Your task to perform on an android device: Toggle the flashlight Image 0: 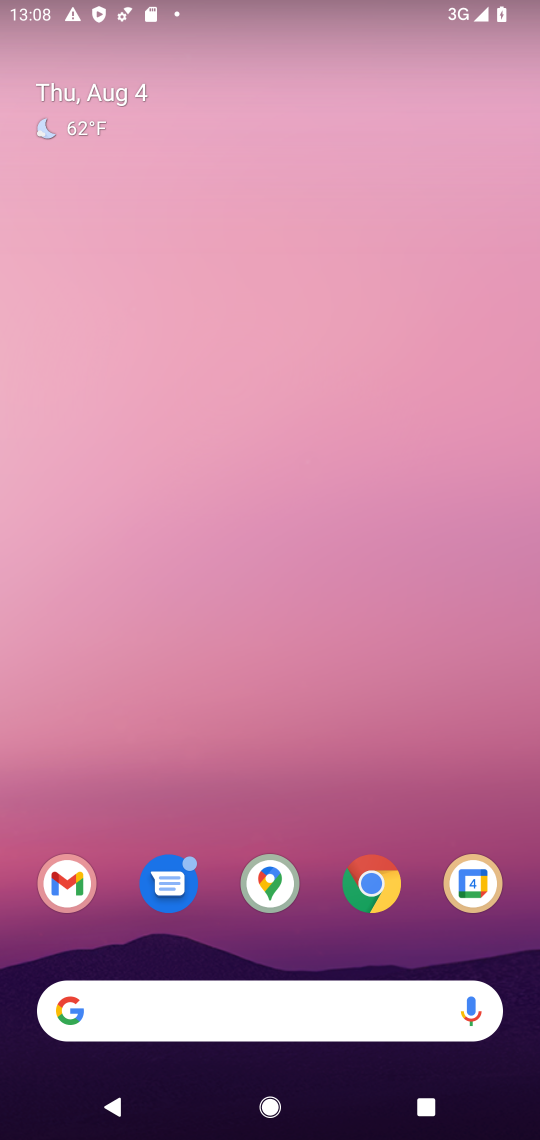
Step 0: drag from (220, 948) to (230, 275)
Your task to perform on an android device: Toggle the flashlight Image 1: 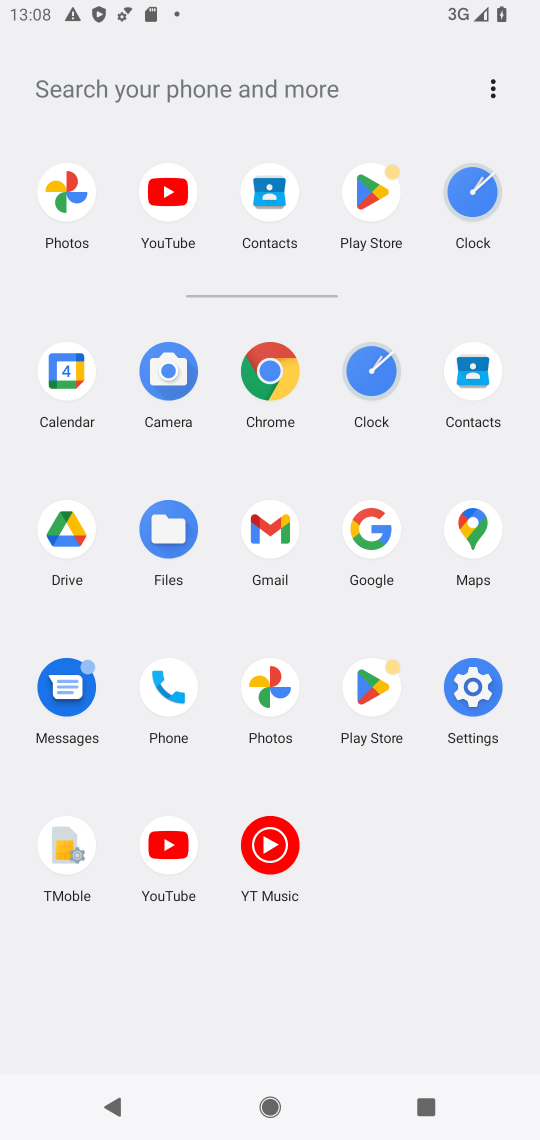
Step 1: click (466, 700)
Your task to perform on an android device: Toggle the flashlight Image 2: 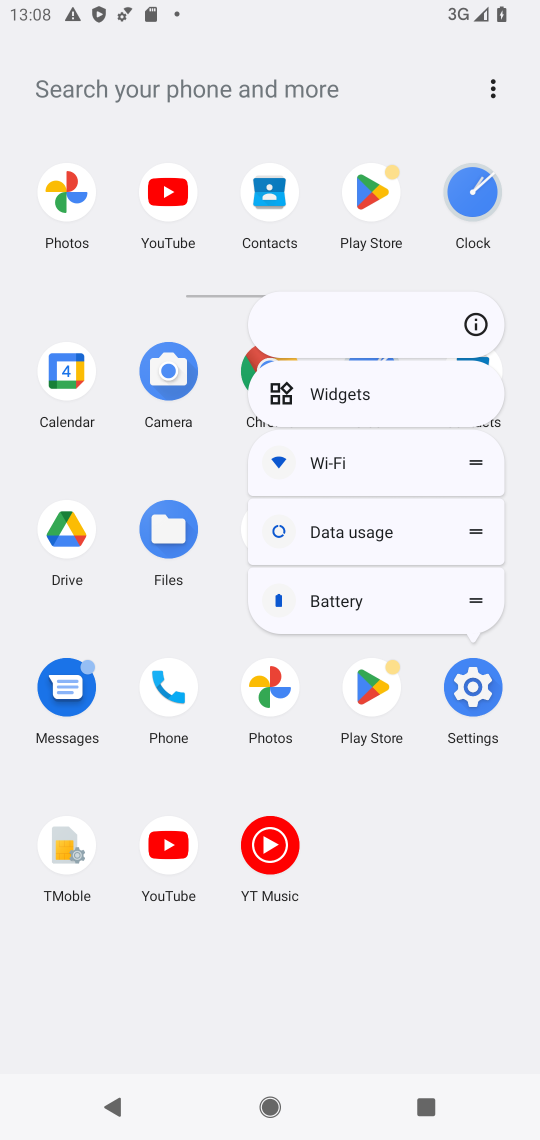
Step 2: click (477, 321)
Your task to perform on an android device: Toggle the flashlight Image 3: 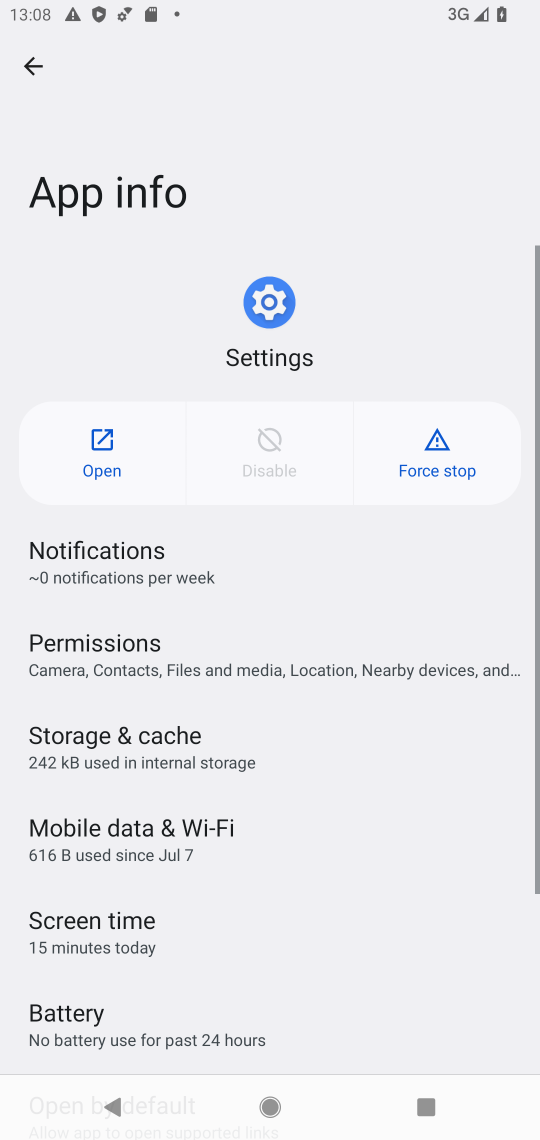
Step 3: click (87, 451)
Your task to perform on an android device: Toggle the flashlight Image 4: 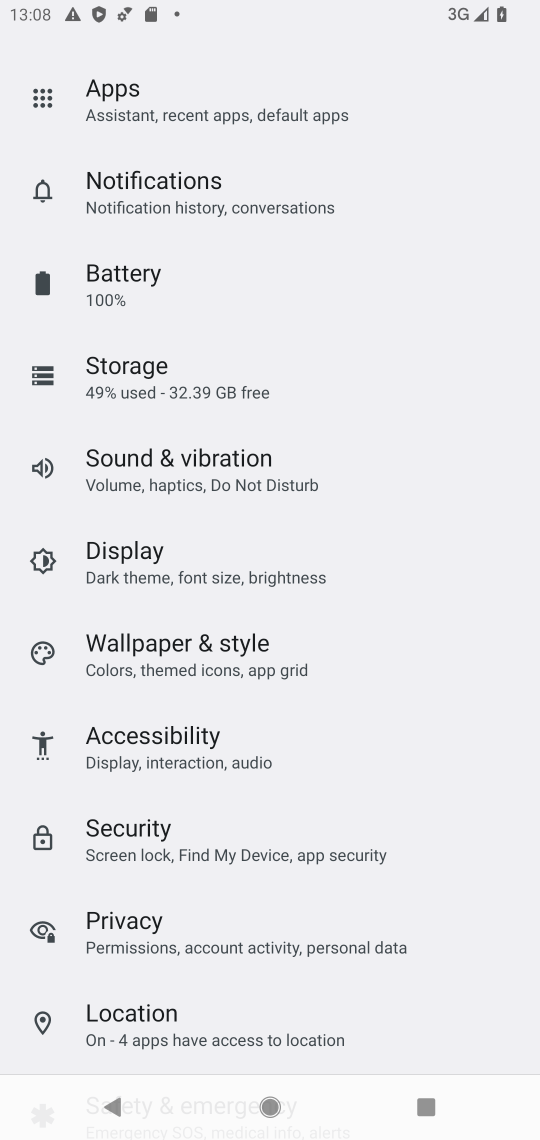
Step 4: drag from (277, 414) to (299, 875)
Your task to perform on an android device: Toggle the flashlight Image 5: 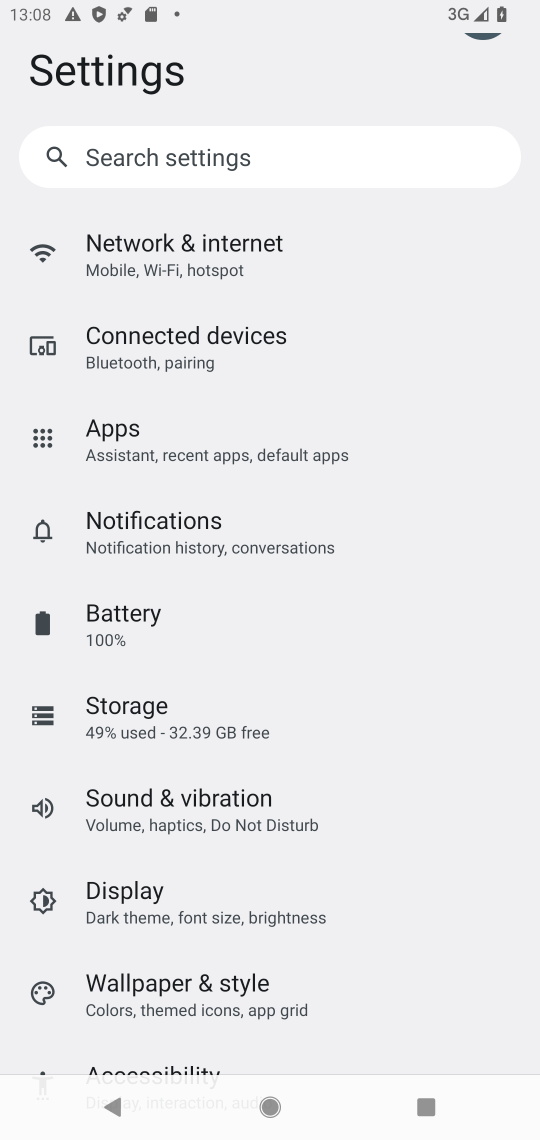
Step 5: click (178, 152)
Your task to perform on an android device: Toggle the flashlight Image 6: 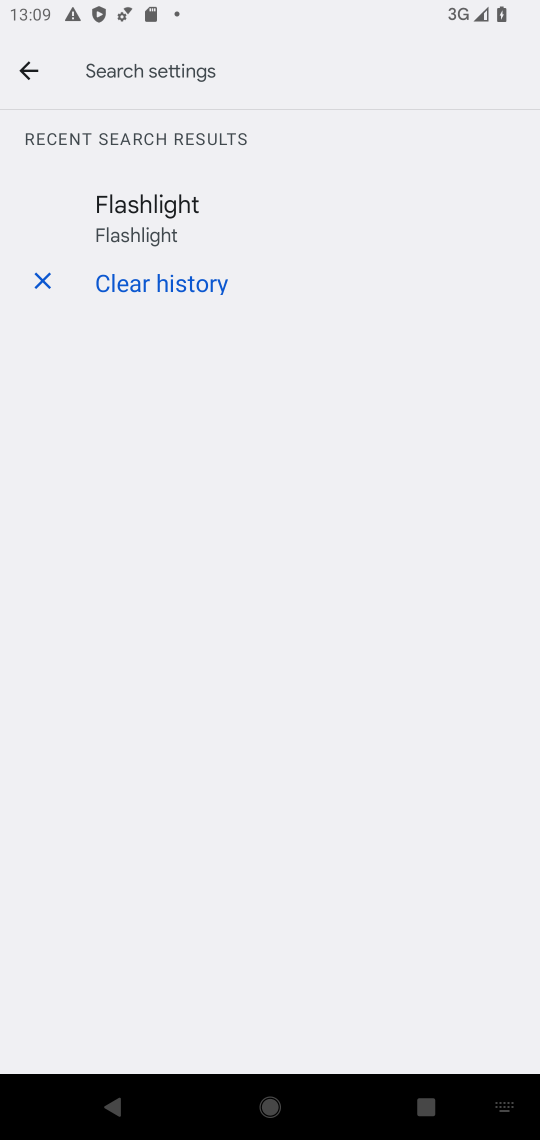
Step 6: click (190, 218)
Your task to perform on an android device: Toggle the flashlight Image 7: 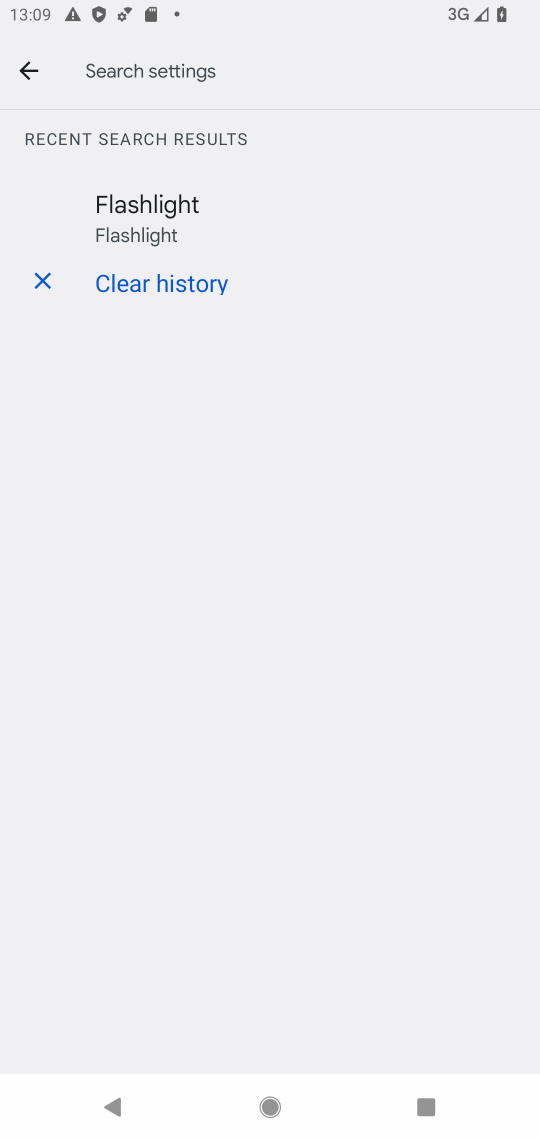
Step 7: click (192, 215)
Your task to perform on an android device: Toggle the flashlight Image 8: 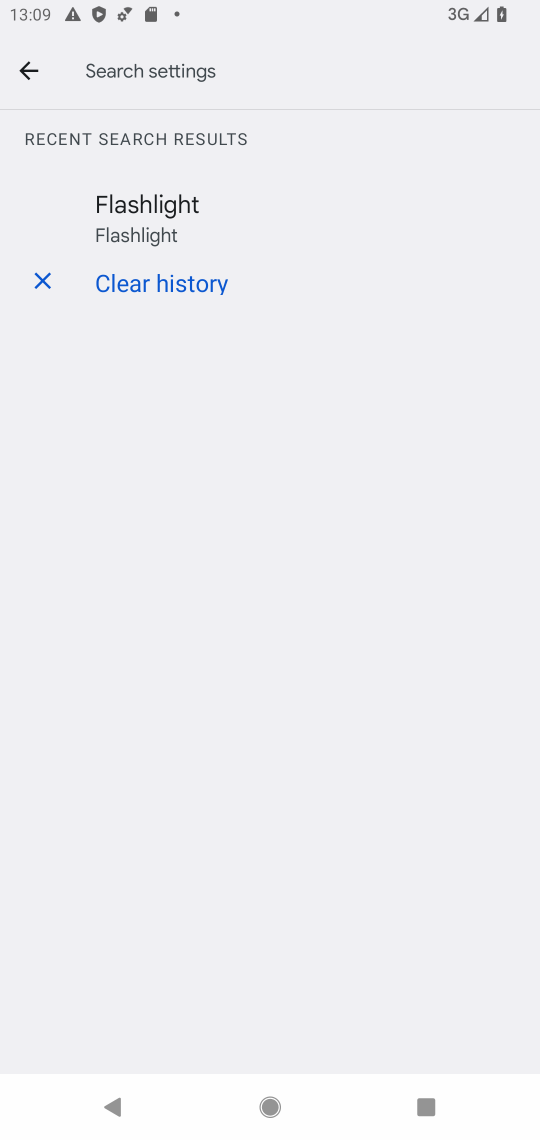
Step 8: click (188, 216)
Your task to perform on an android device: Toggle the flashlight Image 9: 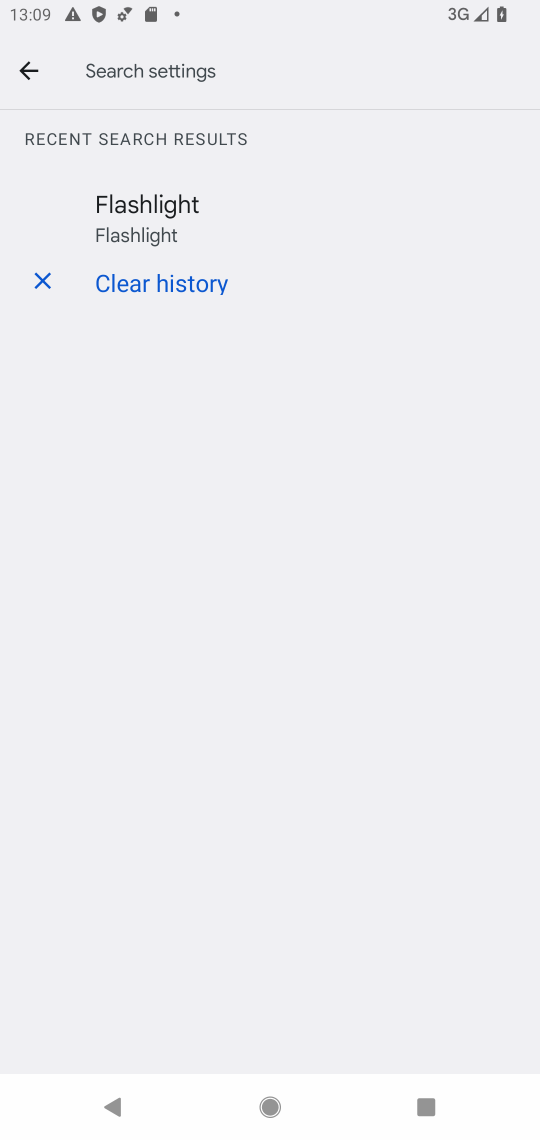
Step 9: task complete